Your task to perform on an android device: toggle wifi Image 0: 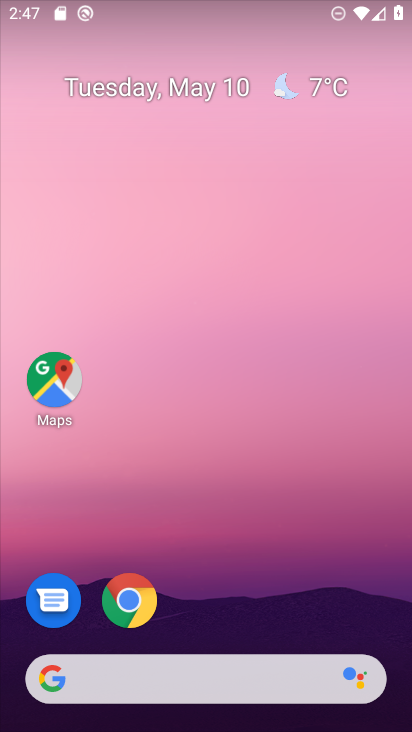
Step 0: drag from (251, 673) to (202, 65)
Your task to perform on an android device: toggle wifi Image 1: 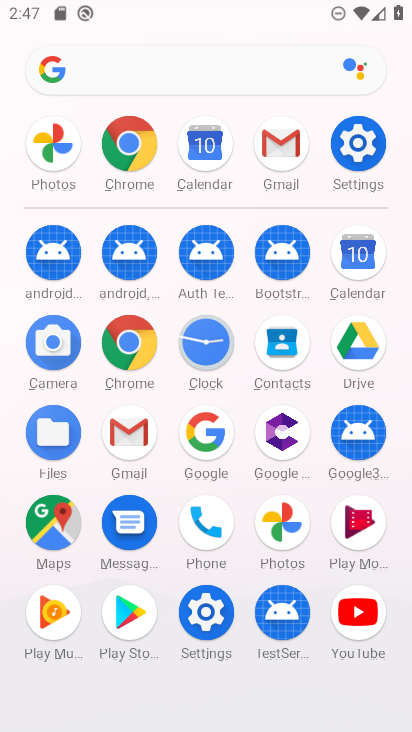
Step 1: click (369, 140)
Your task to perform on an android device: toggle wifi Image 2: 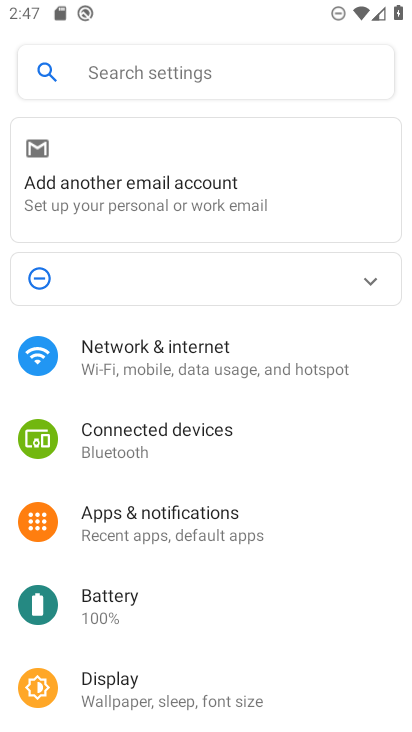
Step 2: click (188, 355)
Your task to perform on an android device: toggle wifi Image 3: 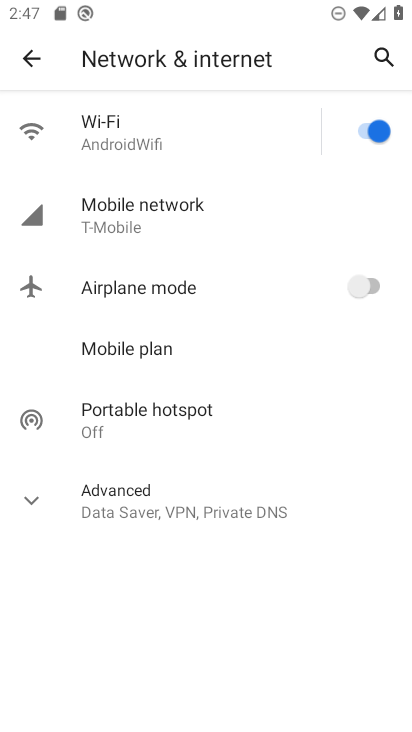
Step 3: click (378, 132)
Your task to perform on an android device: toggle wifi Image 4: 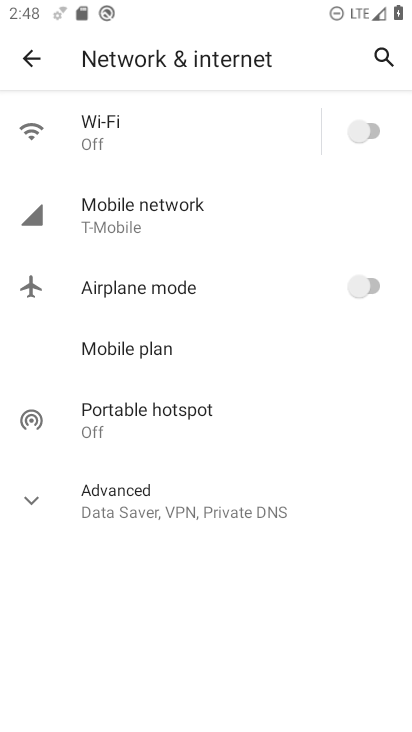
Step 4: click (378, 132)
Your task to perform on an android device: toggle wifi Image 5: 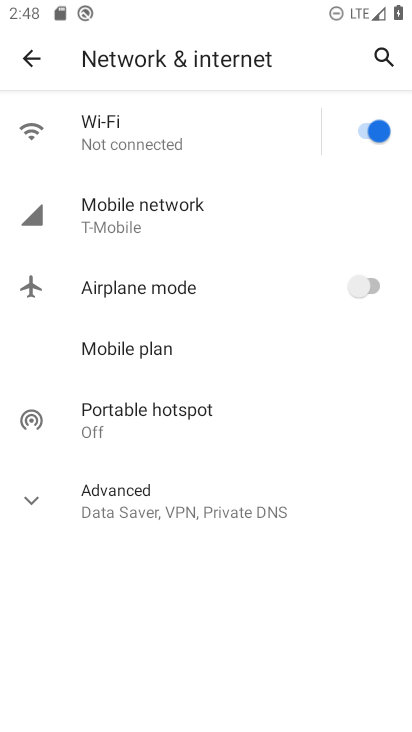
Step 5: task complete